Your task to perform on an android device: open the mobile data screen to see how much data has been used Image 0: 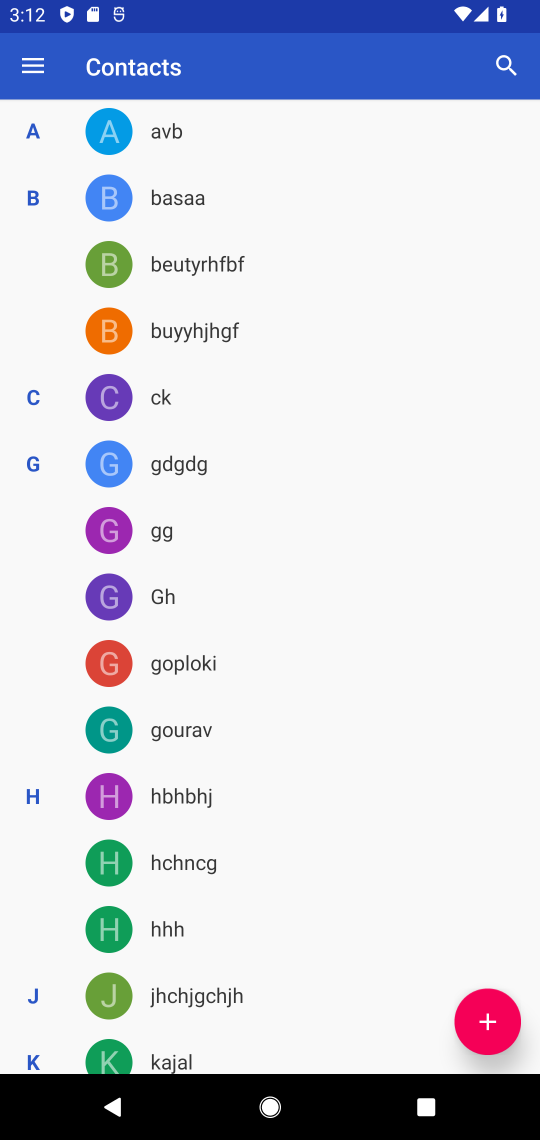
Step 0: press home button
Your task to perform on an android device: open the mobile data screen to see how much data has been used Image 1: 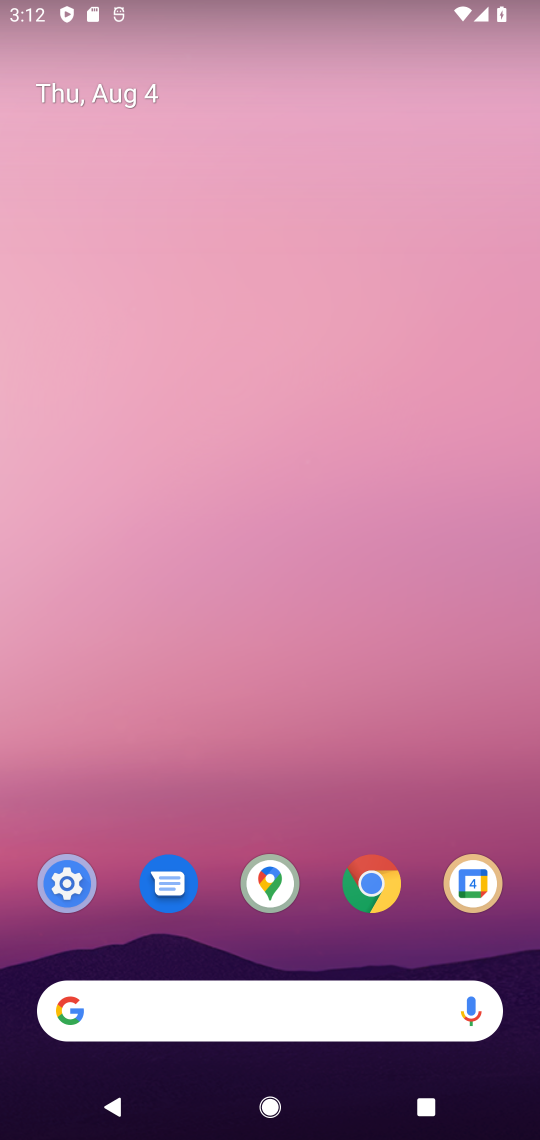
Step 1: drag from (316, 636) to (118, 121)
Your task to perform on an android device: open the mobile data screen to see how much data has been used Image 2: 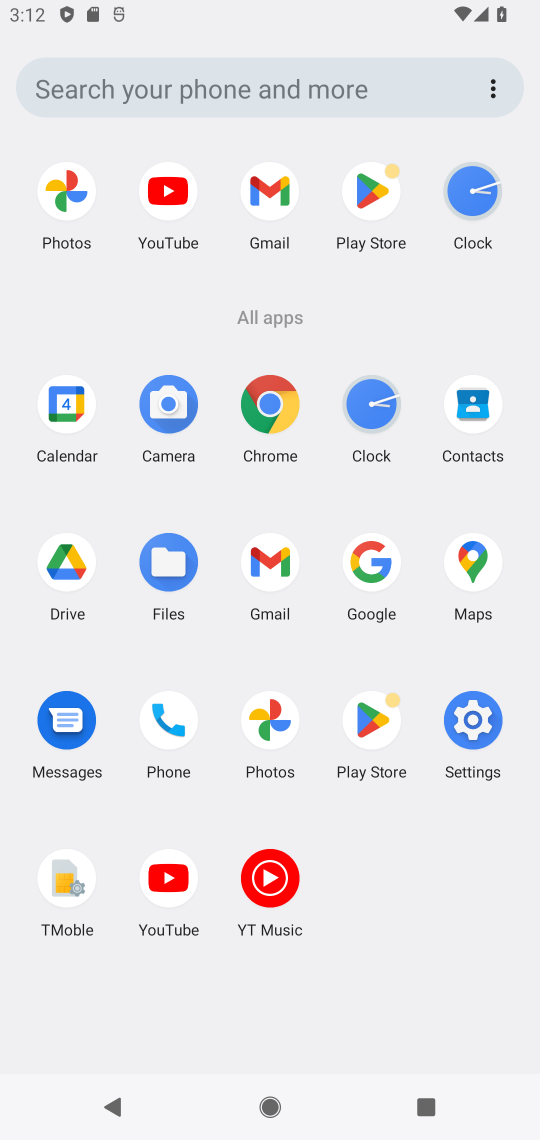
Step 2: click (465, 743)
Your task to perform on an android device: open the mobile data screen to see how much data has been used Image 3: 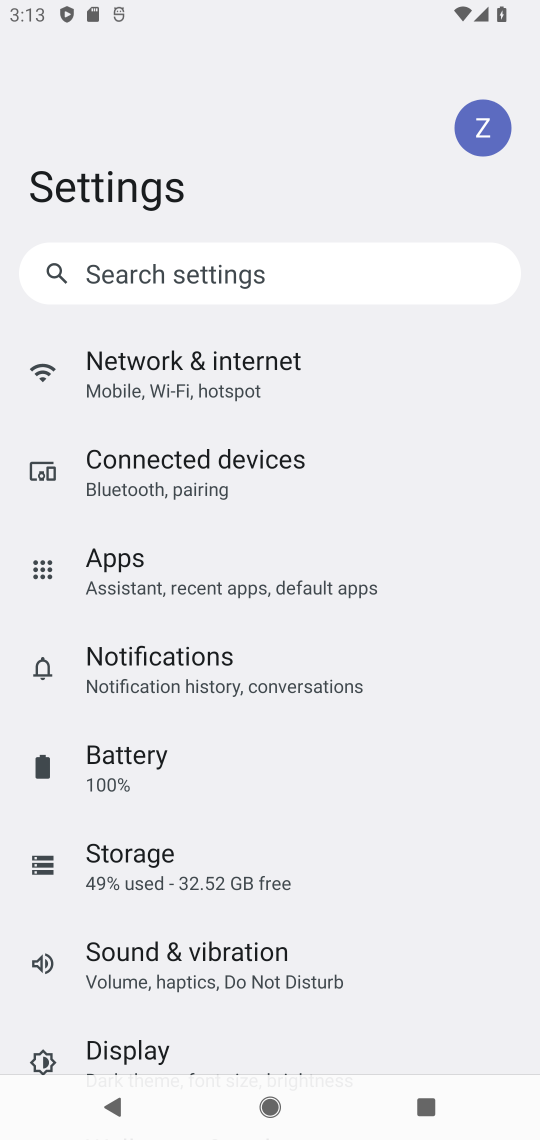
Step 3: task complete